Your task to perform on an android device: check data usage Image 0: 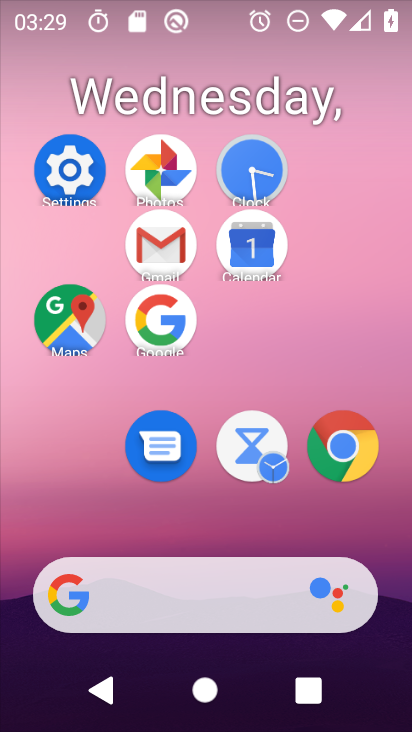
Step 0: click (80, 210)
Your task to perform on an android device: check data usage Image 1: 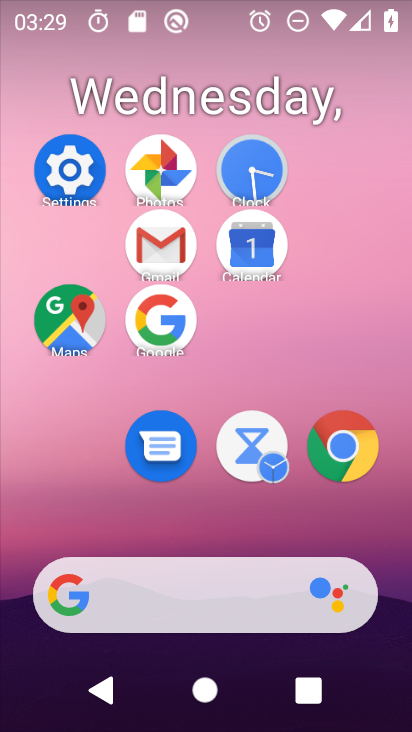
Step 1: click (80, 181)
Your task to perform on an android device: check data usage Image 2: 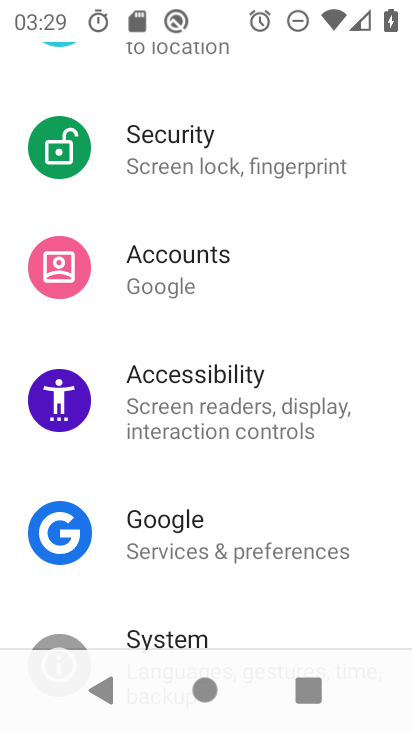
Step 2: drag from (272, 153) to (283, 720)
Your task to perform on an android device: check data usage Image 3: 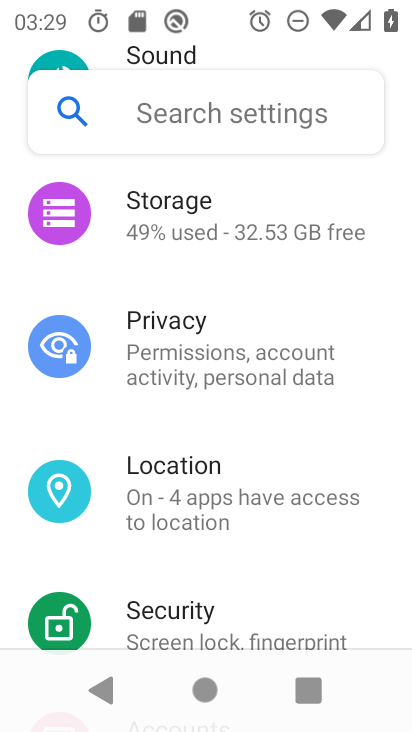
Step 3: drag from (240, 207) to (254, 617)
Your task to perform on an android device: check data usage Image 4: 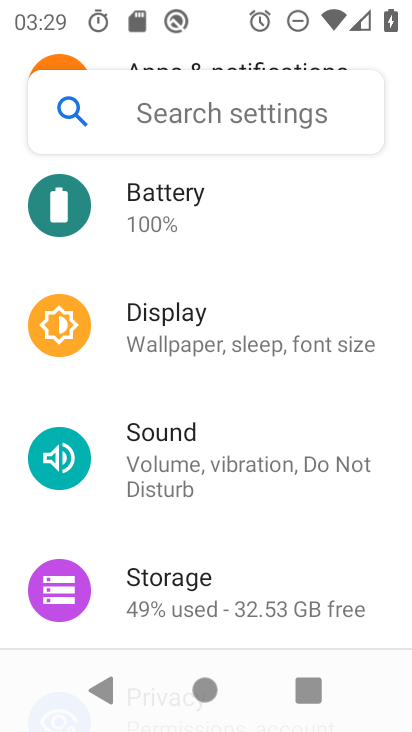
Step 4: drag from (241, 197) to (228, 597)
Your task to perform on an android device: check data usage Image 5: 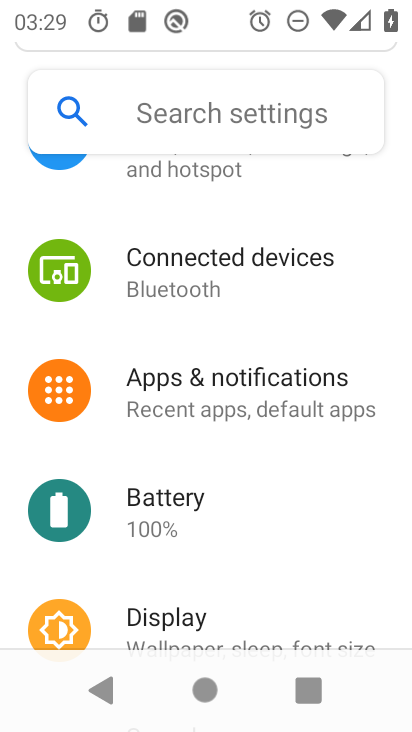
Step 5: drag from (237, 210) to (231, 717)
Your task to perform on an android device: check data usage Image 6: 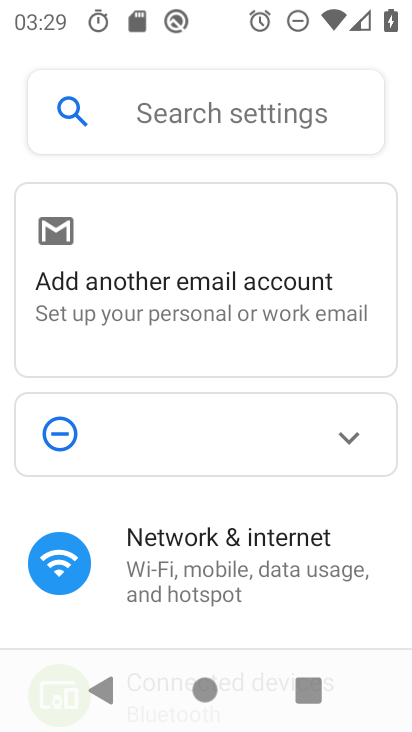
Step 6: click (231, 566)
Your task to perform on an android device: check data usage Image 7: 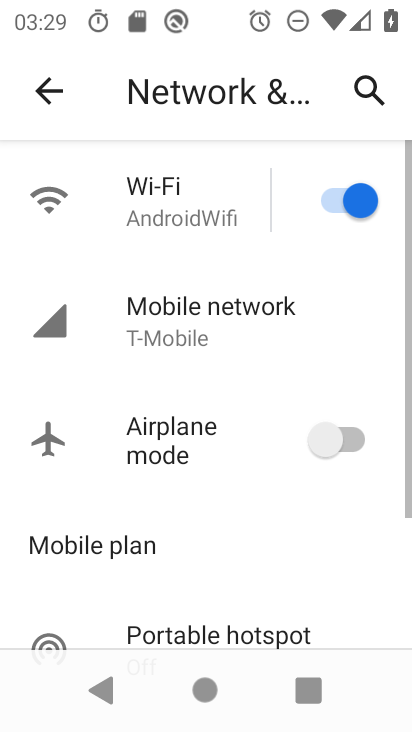
Step 7: click (178, 315)
Your task to perform on an android device: check data usage Image 8: 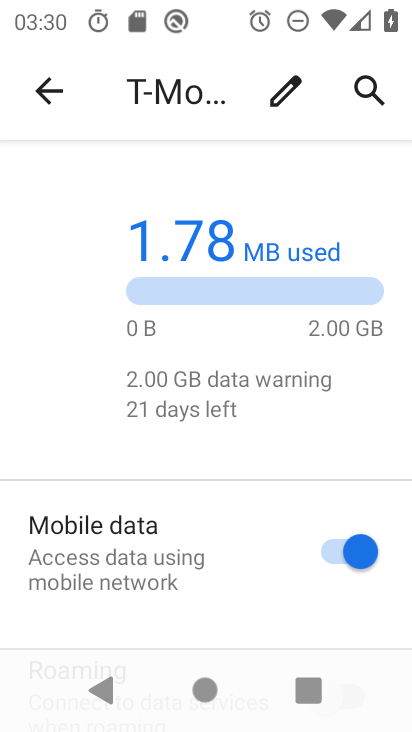
Step 8: task complete